Your task to perform on an android device: turn notification dots off Image 0: 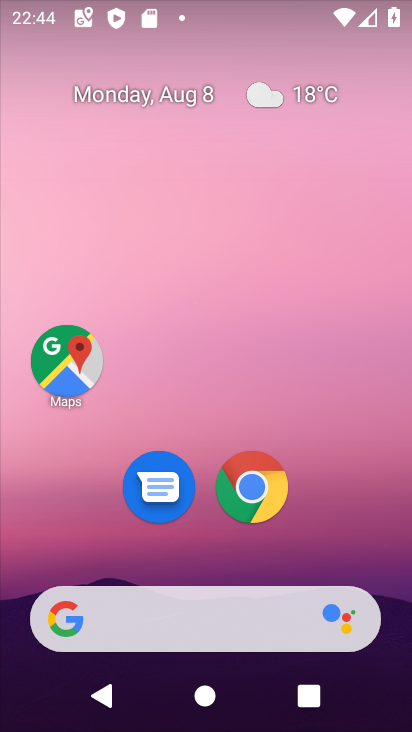
Step 0: drag from (213, 582) to (212, 69)
Your task to perform on an android device: turn notification dots off Image 1: 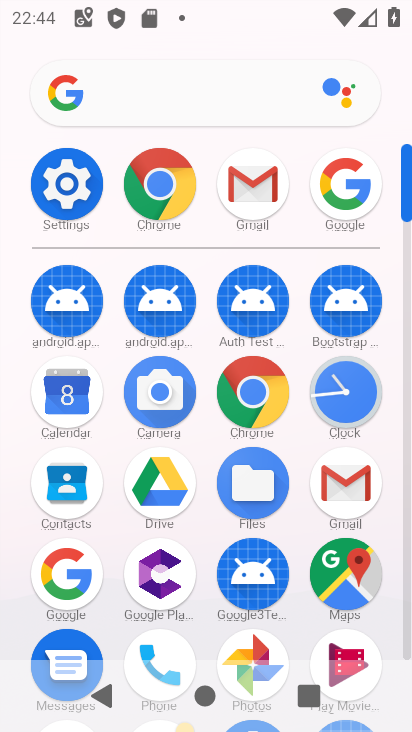
Step 1: click (58, 186)
Your task to perform on an android device: turn notification dots off Image 2: 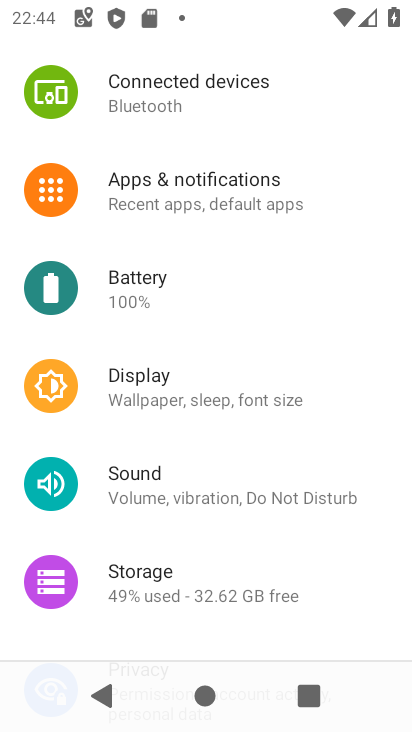
Step 2: click (184, 192)
Your task to perform on an android device: turn notification dots off Image 3: 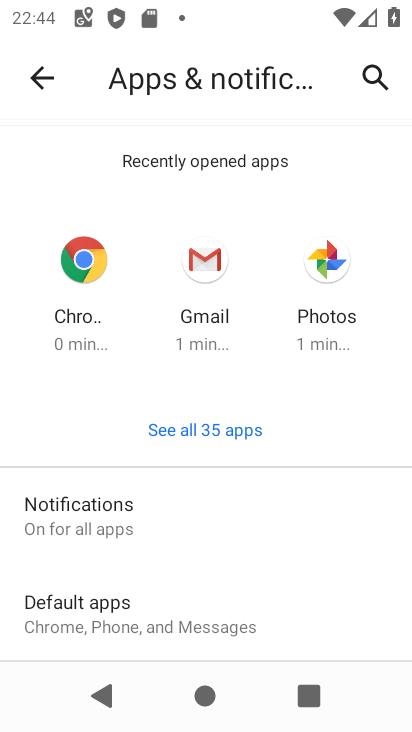
Step 3: click (83, 525)
Your task to perform on an android device: turn notification dots off Image 4: 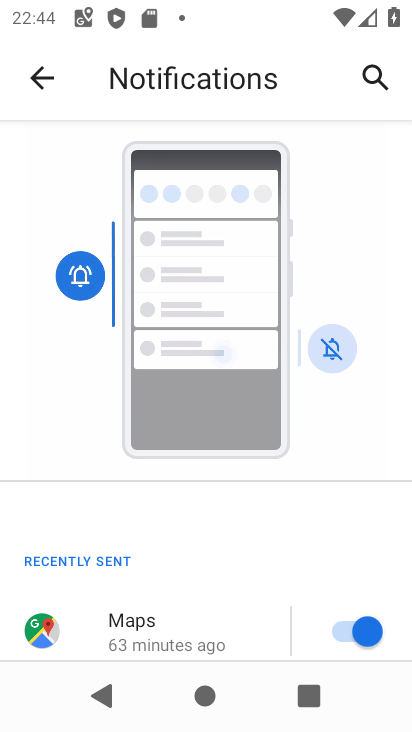
Step 4: drag from (135, 611) to (121, 320)
Your task to perform on an android device: turn notification dots off Image 5: 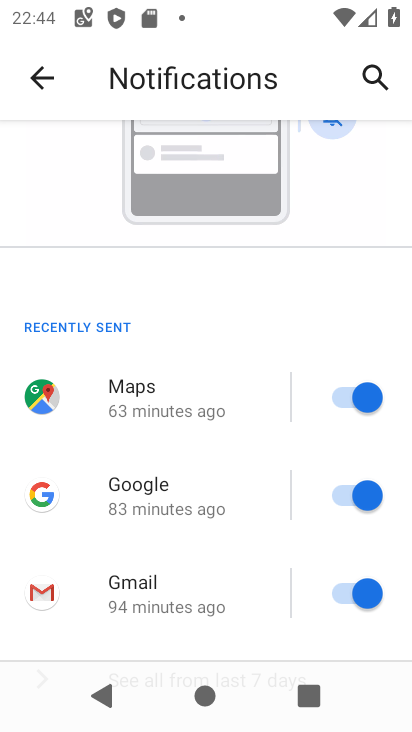
Step 5: drag from (200, 620) to (196, 327)
Your task to perform on an android device: turn notification dots off Image 6: 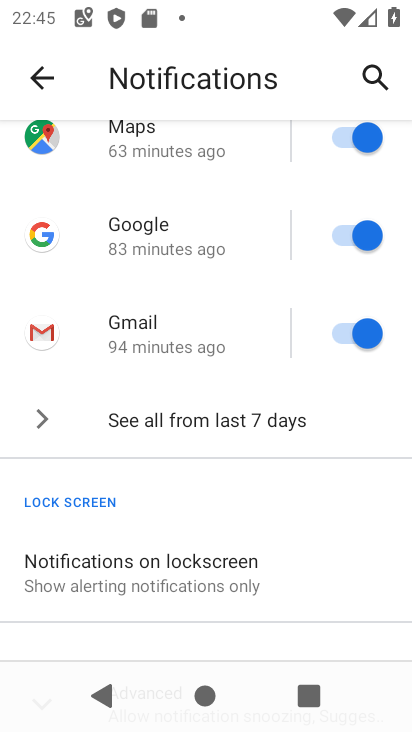
Step 6: drag from (206, 597) to (220, 372)
Your task to perform on an android device: turn notification dots off Image 7: 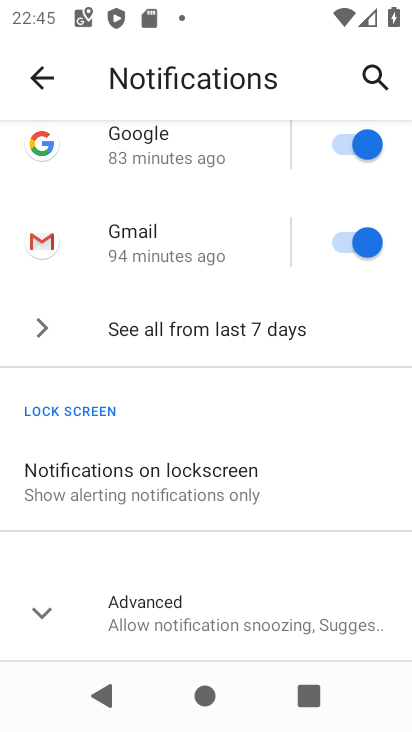
Step 7: drag from (203, 598) to (200, 315)
Your task to perform on an android device: turn notification dots off Image 8: 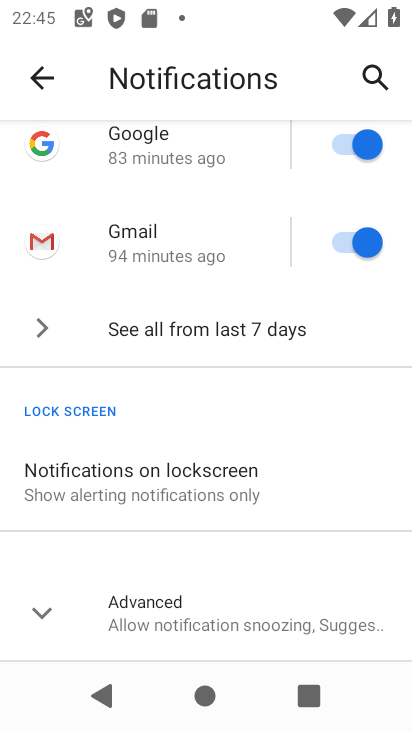
Step 8: click (168, 612)
Your task to perform on an android device: turn notification dots off Image 9: 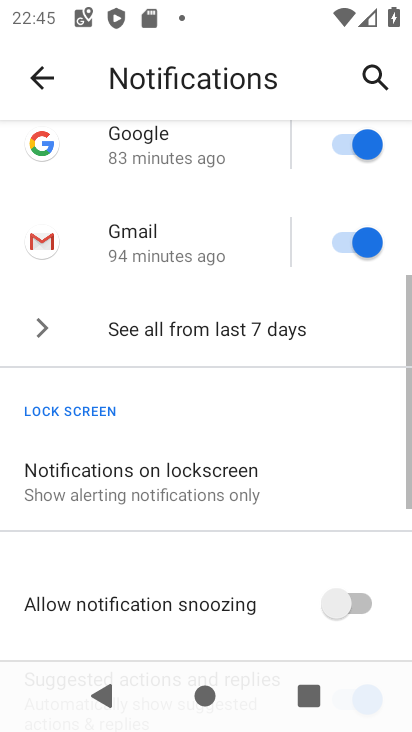
Step 9: drag from (218, 636) to (214, 431)
Your task to perform on an android device: turn notification dots off Image 10: 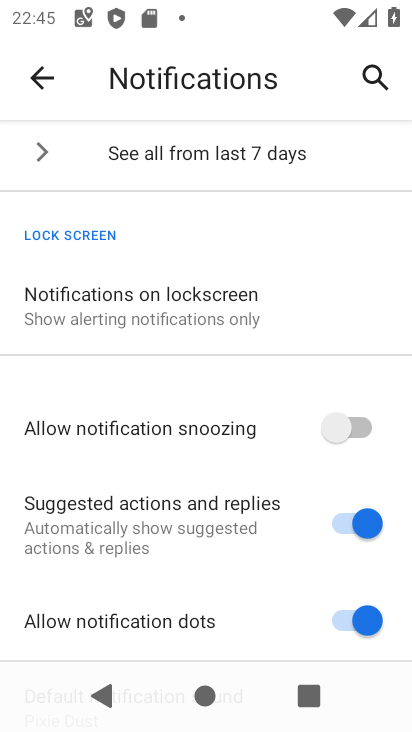
Step 10: click (352, 619)
Your task to perform on an android device: turn notification dots off Image 11: 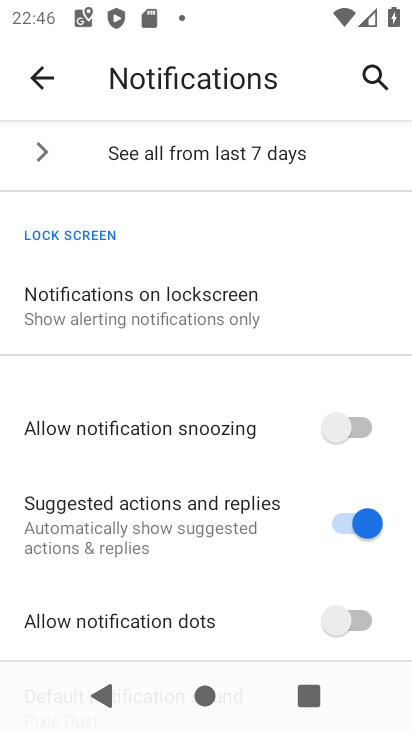
Step 11: task complete